Your task to perform on an android device: Open calendar and show me the third week of next month Image 0: 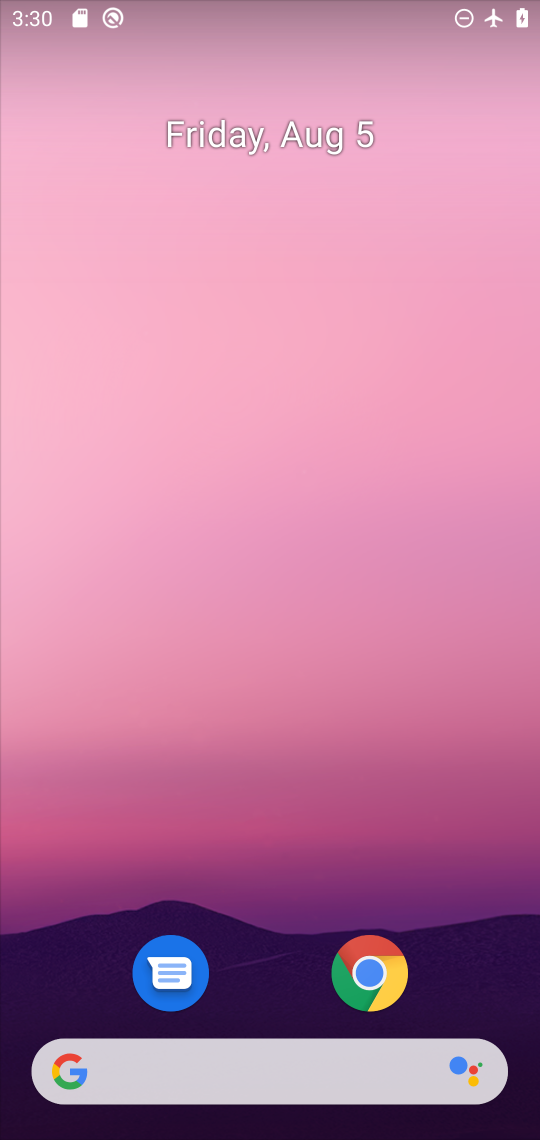
Step 0: drag from (274, 1000) to (264, 126)
Your task to perform on an android device: Open calendar and show me the third week of next month Image 1: 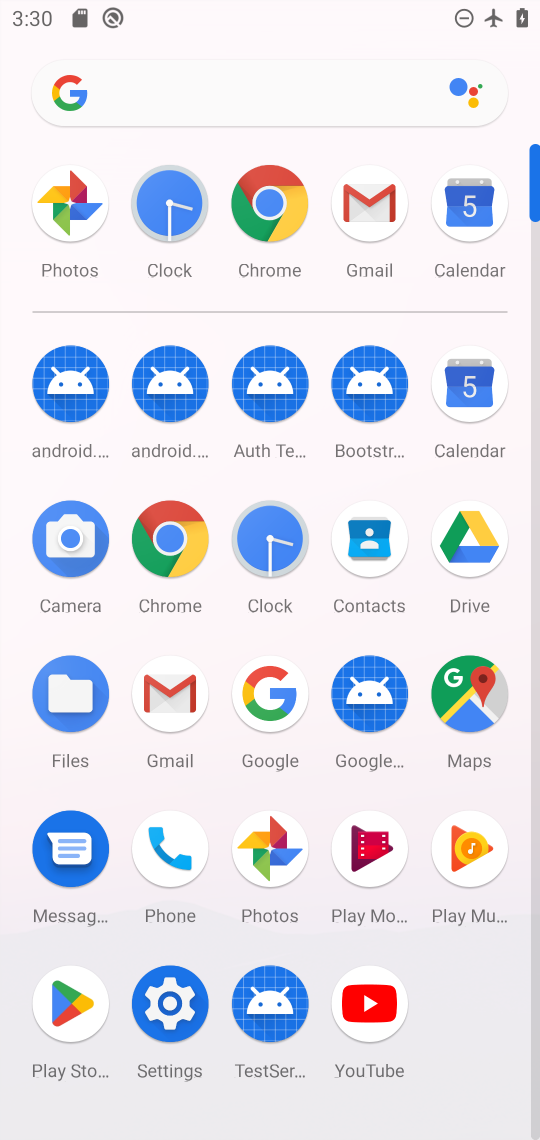
Step 1: click (466, 406)
Your task to perform on an android device: Open calendar and show me the third week of next month Image 2: 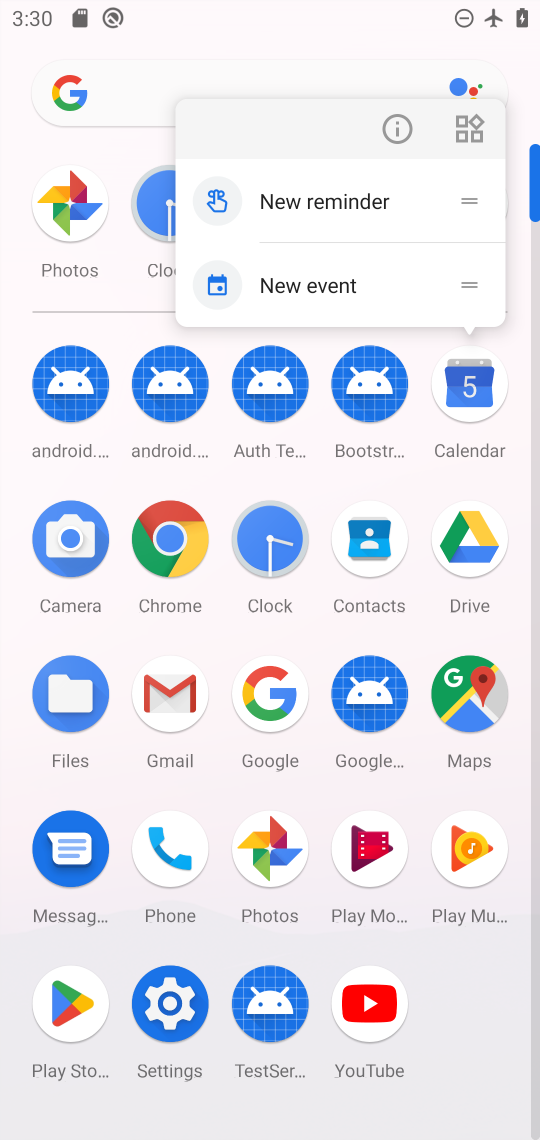
Step 2: click (465, 404)
Your task to perform on an android device: Open calendar and show me the third week of next month Image 3: 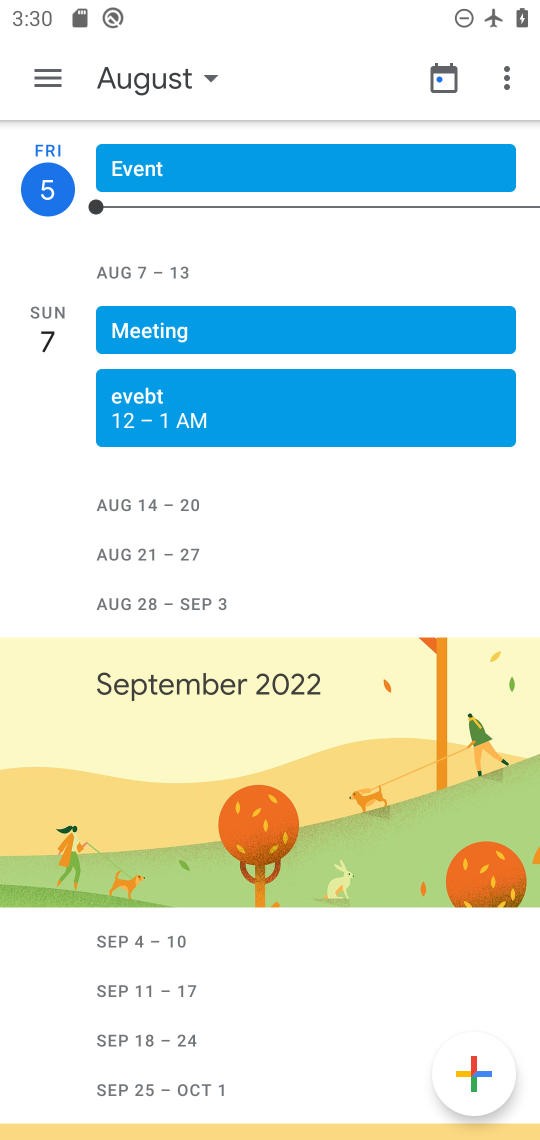
Step 3: click (32, 72)
Your task to perform on an android device: Open calendar and show me the third week of next month Image 4: 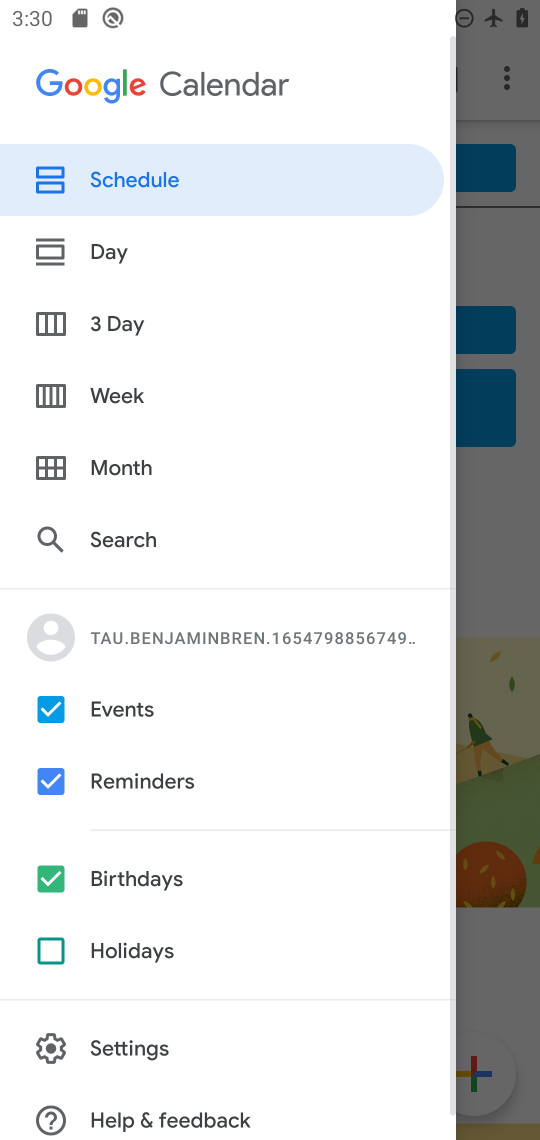
Step 4: click (94, 403)
Your task to perform on an android device: Open calendar and show me the third week of next month Image 5: 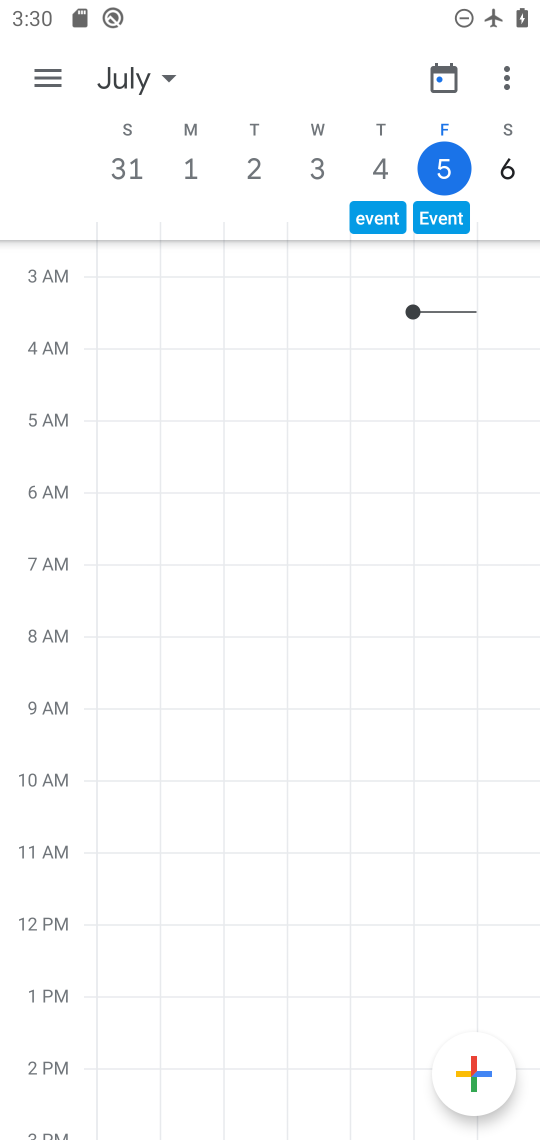
Step 5: task complete